Your task to perform on an android device: Open maps Image 0: 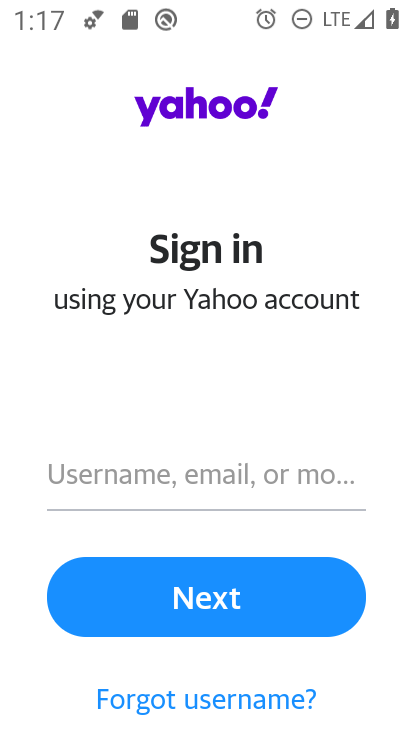
Step 0: press home button
Your task to perform on an android device: Open maps Image 1: 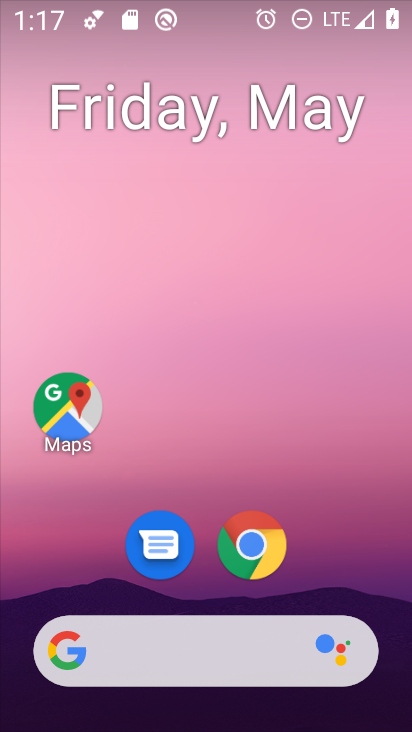
Step 1: click (65, 402)
Your task to perform on an android device: Open maps Image 2: 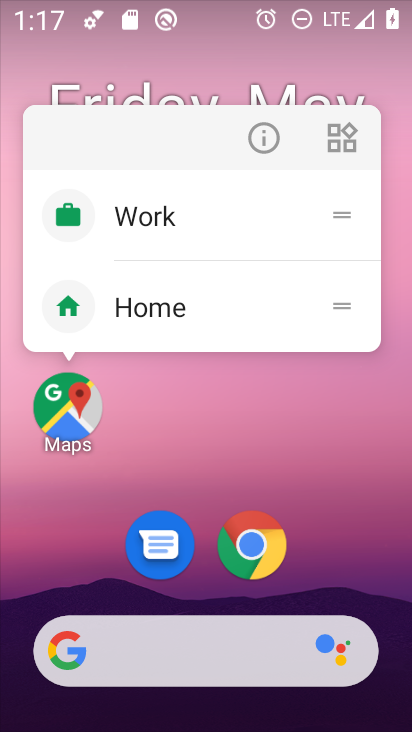
Step 2: click (83, 401)
Your task to perform on an android device: Open maps Image 3: 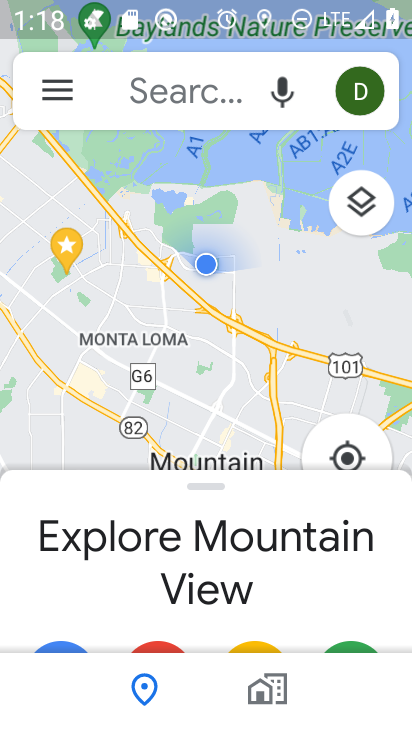
Step 3: task complete